Your task to perform on an android device: Open internet settings Image 0: 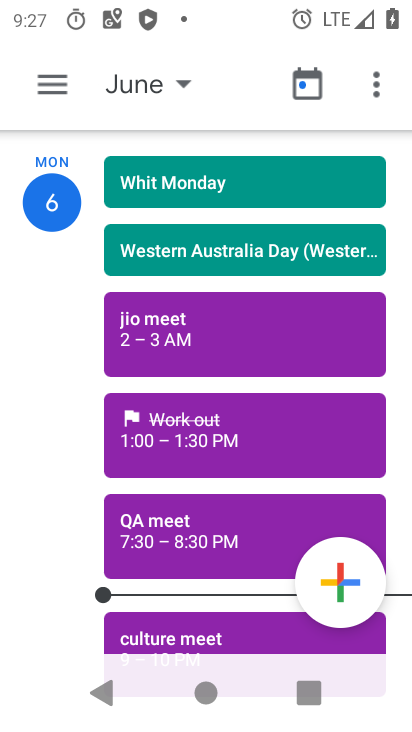
Step 0: press home button
Your task to perform on an android device: Open internet settings Image 1: 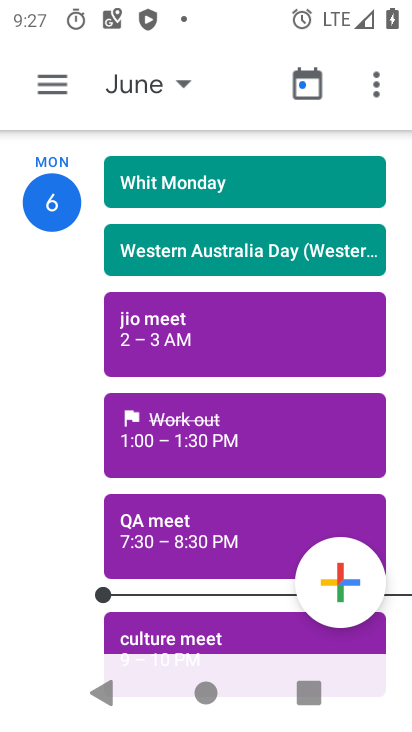
Step 1: press home button
Your task to perform on an android device: Open internet settings Image 2: 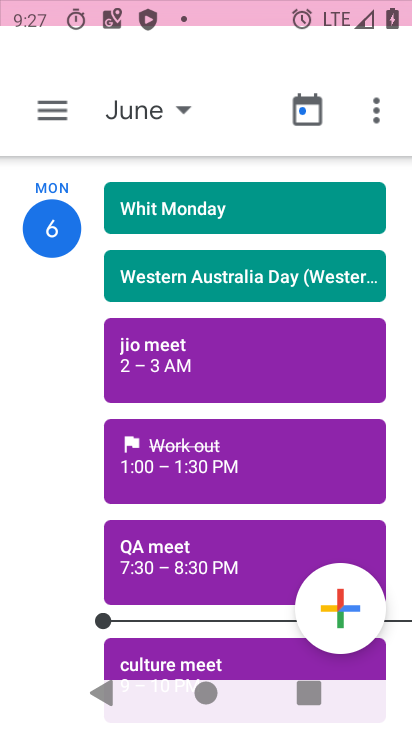
Step 2: drag from (235, 565) to (284, 61)
Your task to perform on an android device: Open internet settings Image 3: 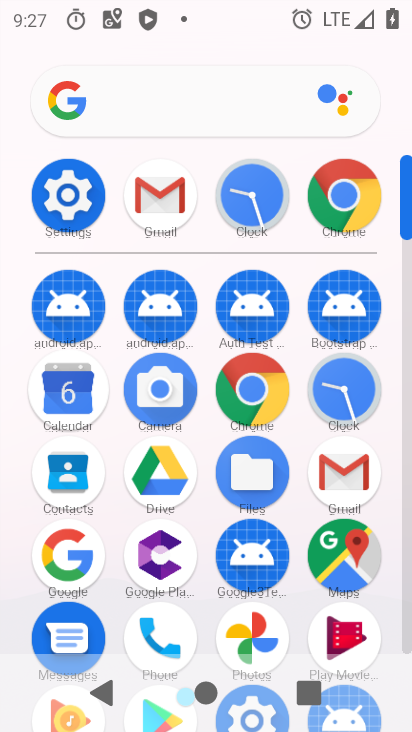
Step 3: click (63, 183)
Your task to perform on an android device: Open internet settings Image 4: 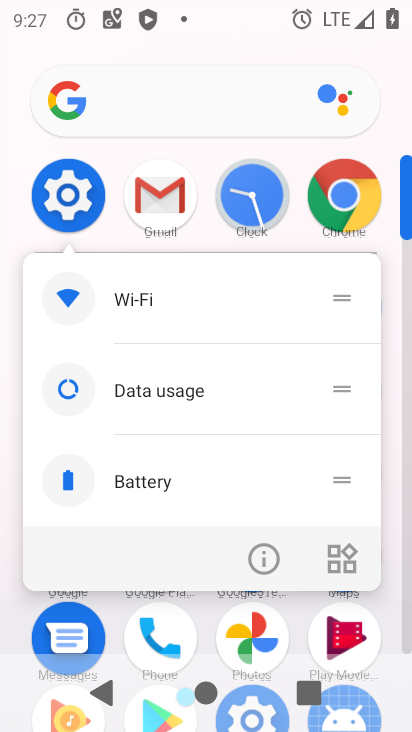
Step 4: click (254, 561)
Your task to perform on an android device: Open internet settings Image 5: 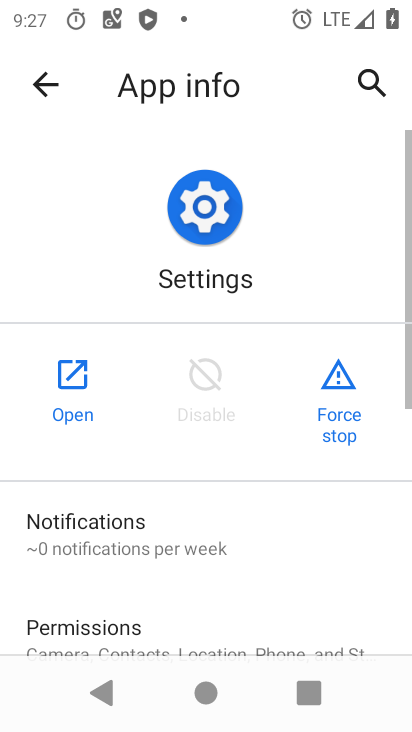
Step 5: click (69, 381)
Your task to perform on an android device: Open internet settings Image 6: 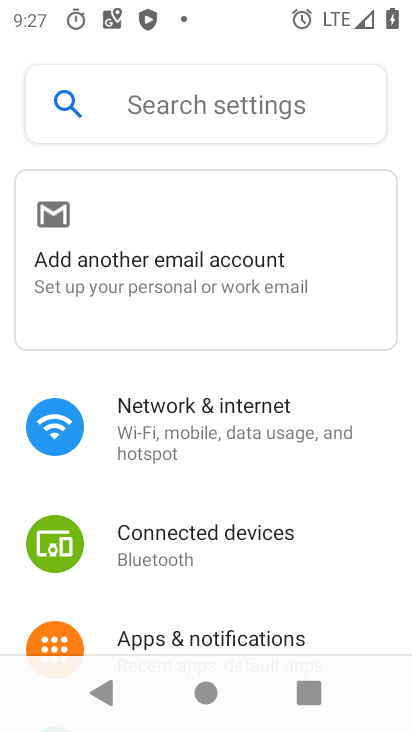
Step 6: click (206, 409)
Your task to perform on an android device: Open internet settings Image 7: 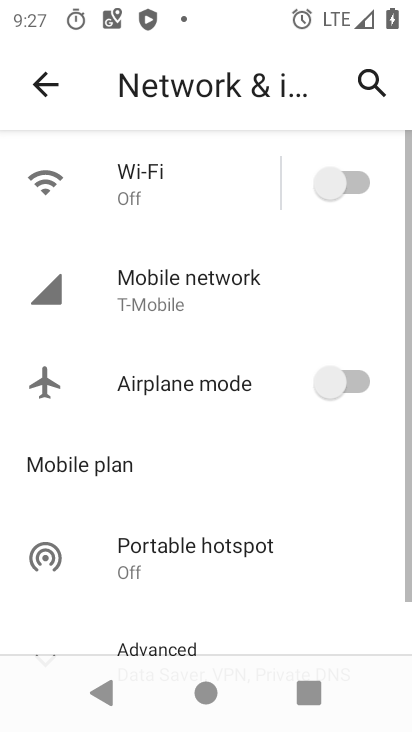
Step 7: task complete